Your task to perform on an android device: toggle pop-ups in chrome Image 0: 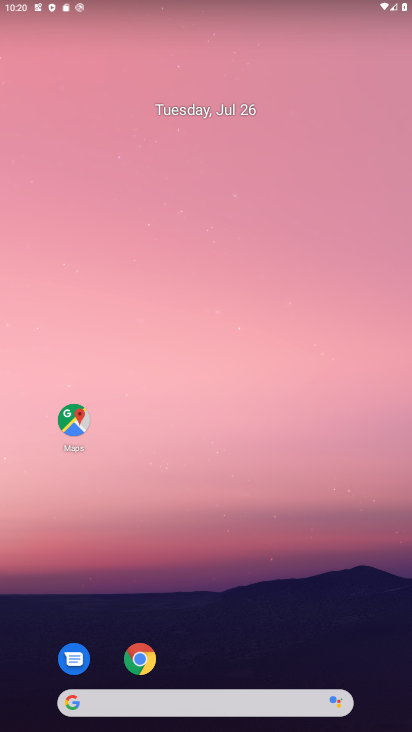
Step 0: press home button
Your task to perform on an android device: toggle pop-ups in chrome Image 1: 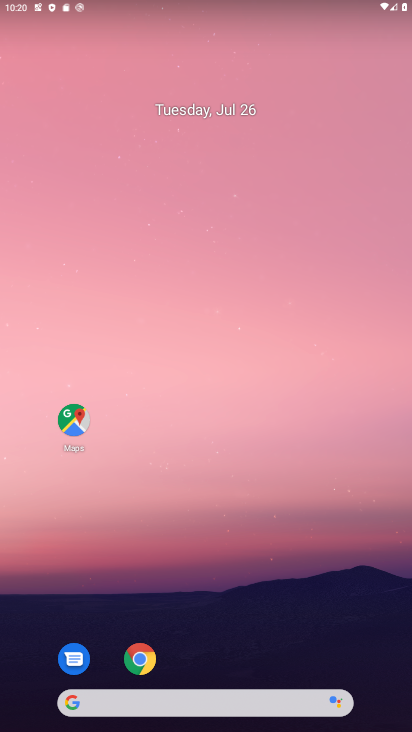
Step 1: drag from (306, 639) to (348, 456)
Your task to perform on an android device: toggle pop-ups in chrome Image 2: 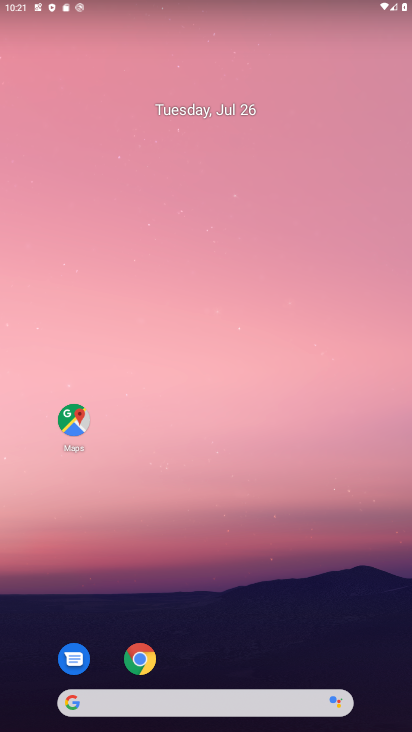
Step 2: drag from (310, 650) to (323, 103)
Your task to perform on an android device: toggle pop-ups in chrome Image 3: 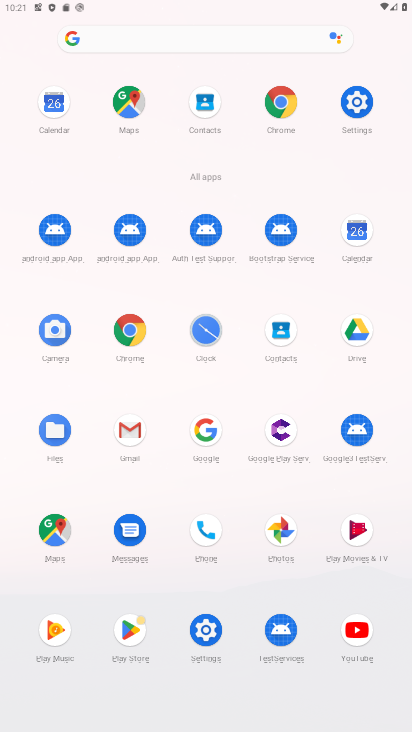
Step 3: click (120, 330)
Your task to perform on an android device: toggle pop-ups in chrome Image 4: 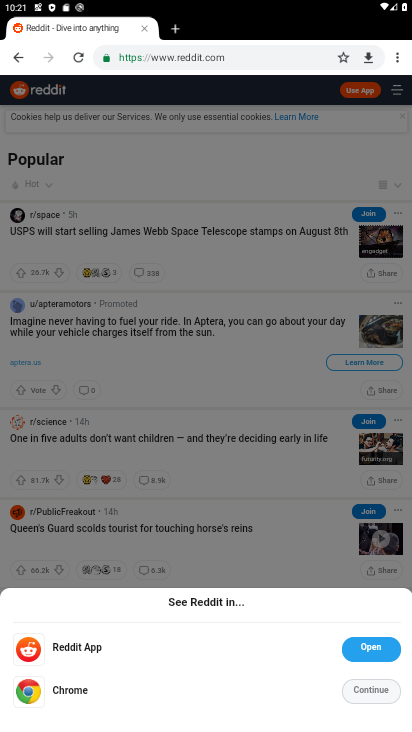
Step 4: drag from (396, 52) to (268, 383)
Your task to perform on an android device: toggle pop-ups in chrome Image 5: 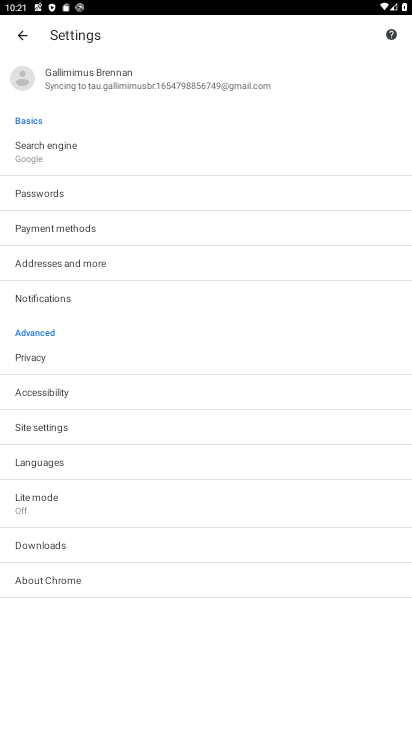
Step 5: click (68, 423)
Your task to perform on an android device: toggle pop-ups in chrome Image 6: 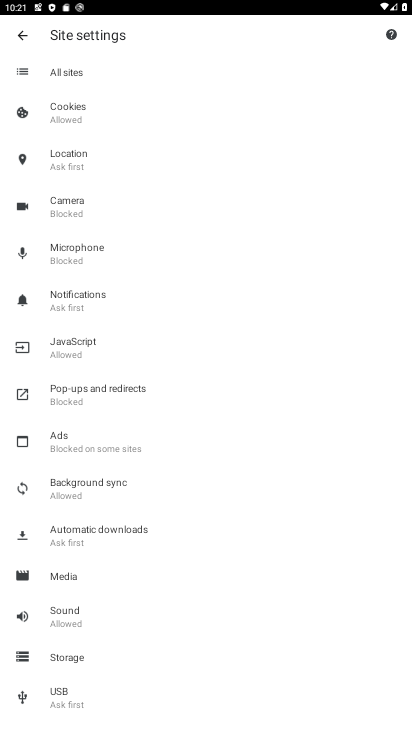
Step 6: click (93, 387)
Your task to perform on an android device: toggle pop-ups in chrome Image 7: 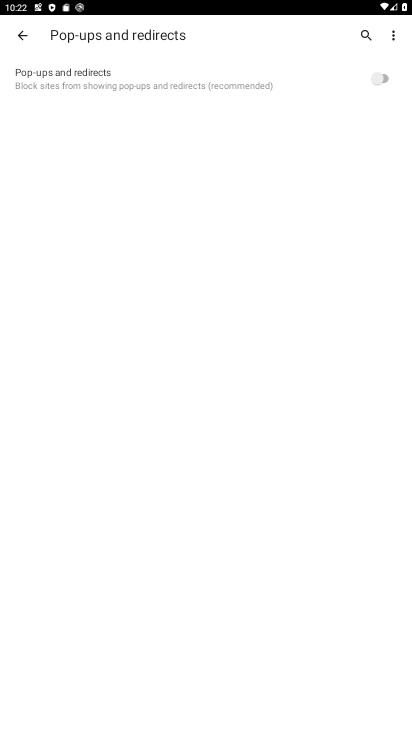
Step 7: click (364, 82)
Your task to perform on an android device: toggle pop-ups in chrome Image 8: 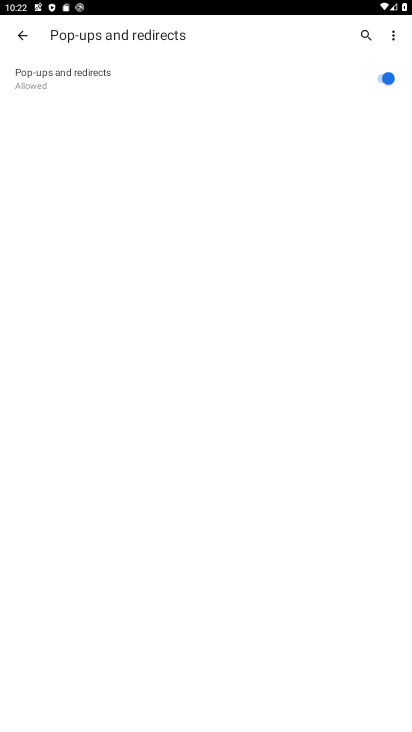
Step 8: task complete